Your task to perform on an android device: toggle data saver in the chrome app Image 0: 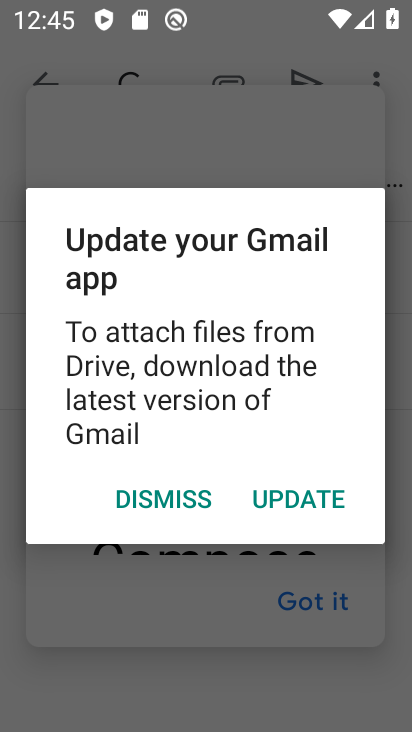
Step 0: press home button
Your task to perform on an android device: toggle data saver in the chrome app Image 1: 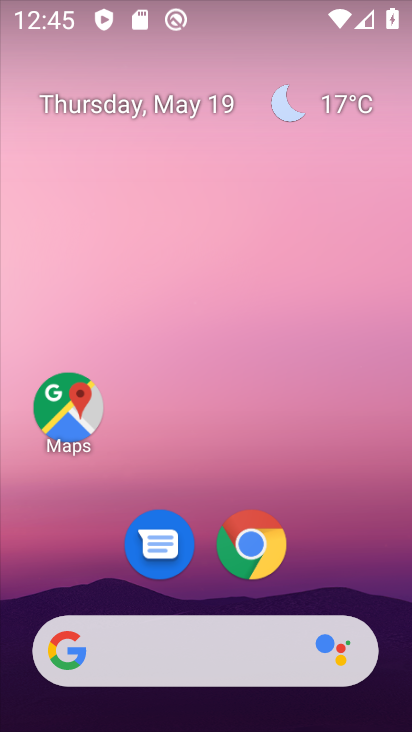
Step 1: click (252, 544)
Your task to perform on an android device: toggle data saver in the chrome app Image 2: 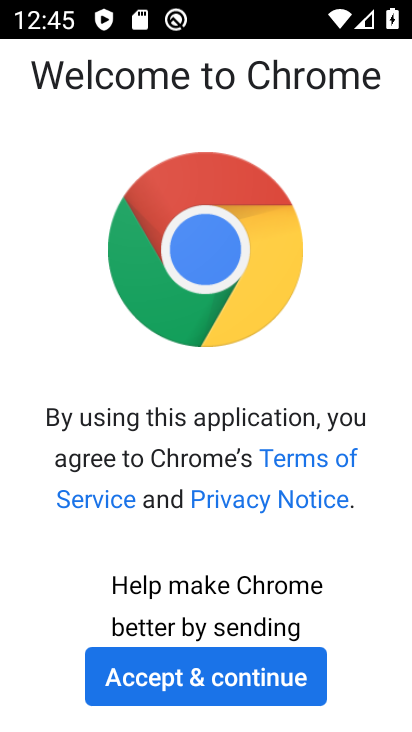
Step 2: click (146, 680)
Your task to perform on an android device: toggle data saver in the chrome app Image 3: 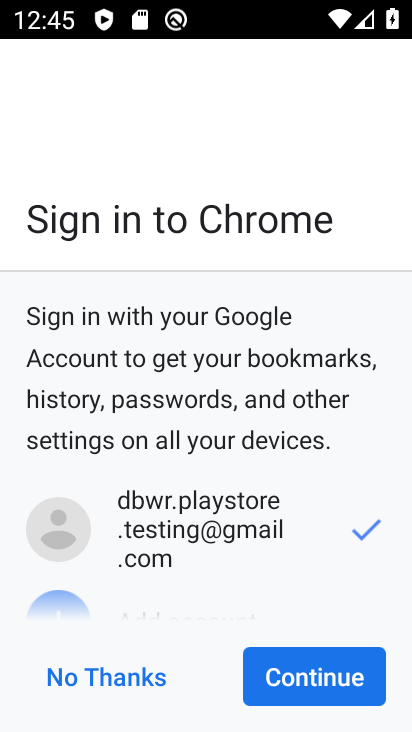
Step 3: click (309, 674)
Your task to perform on an android device: toggle data saver in the chrome app Image 4: 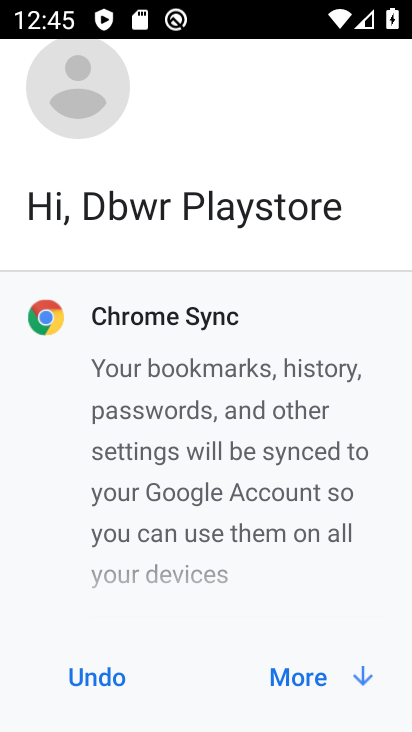
Step 4: click (284, 669)
Your task to perform on an android device: toggle data saver in the chrome app Image 5: 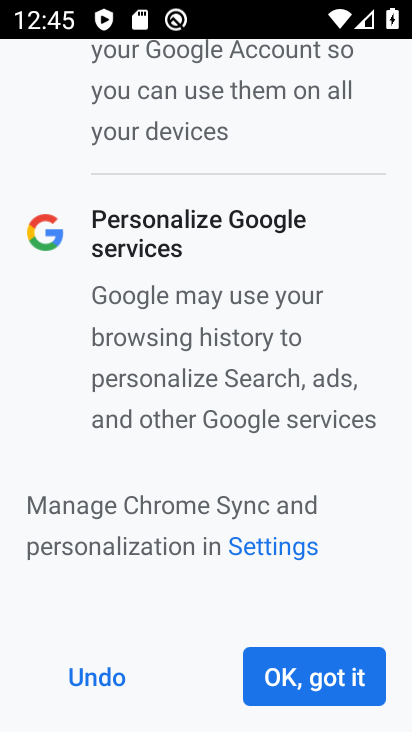
Step 5: click (286, 668)
Your task to perform on an android device: toggle data saver in the chrome app Image 6: 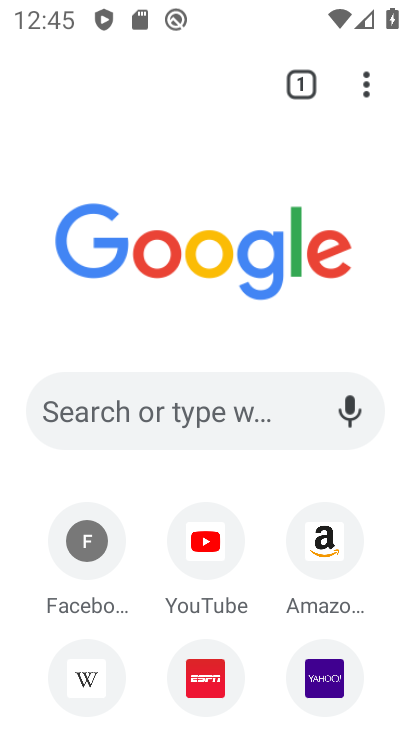
Step 6: click (367, 90)
Your task to perform on an android device: toggle data saver in the chrome app Image 7: 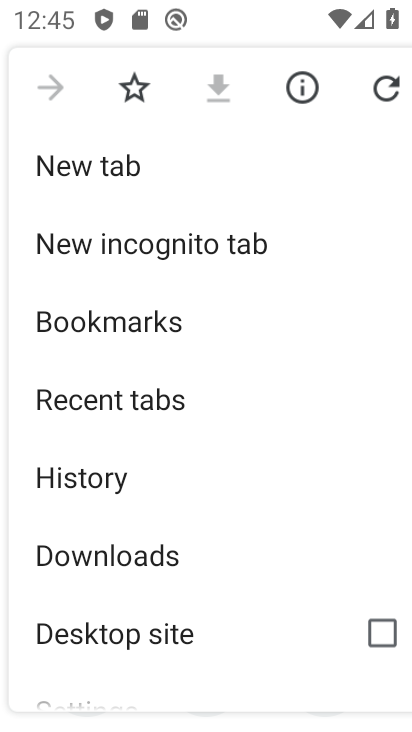
Step 7: drag from (202, 643) to (198, 340)
Your task to perform on an android device: toggle data saver in the chrome app Image 8: 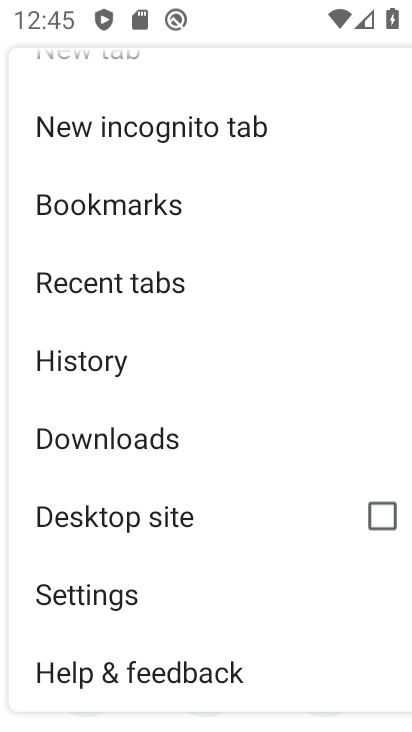
Step 8: click (86, 586)
Your task to perform on an android device: toggle data saver in the chrome app Image 9: 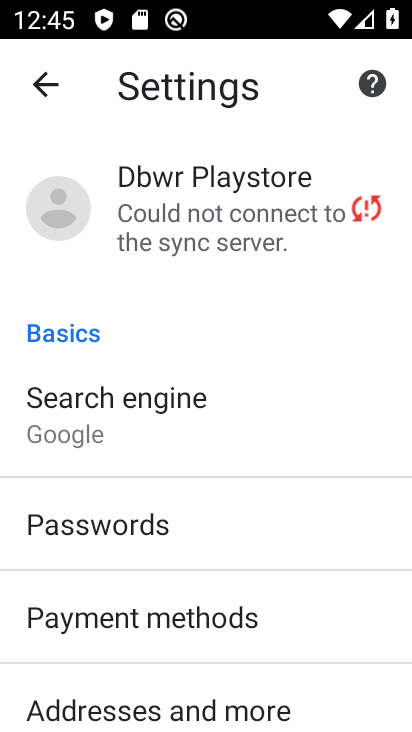
Step 9: drag from (144, 691) to (148, 340)
Your task to perform on an android device: toggle data saver in the chrome app Image 10: 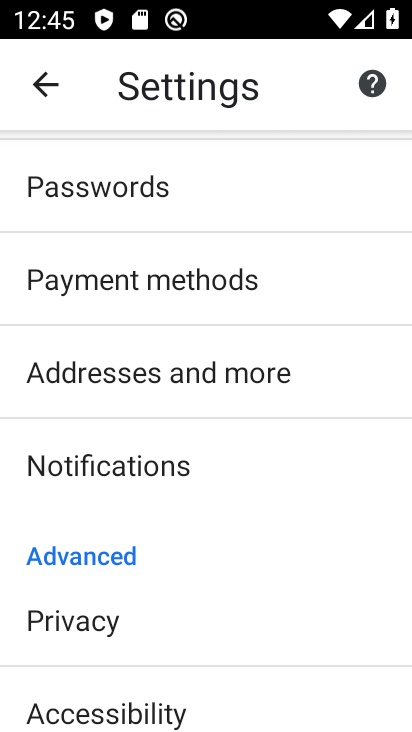
Step 10: drag from (186, 678) to (186, 324)
Your task to perform on an android device: toggle data saver in the chrome app Image 11: 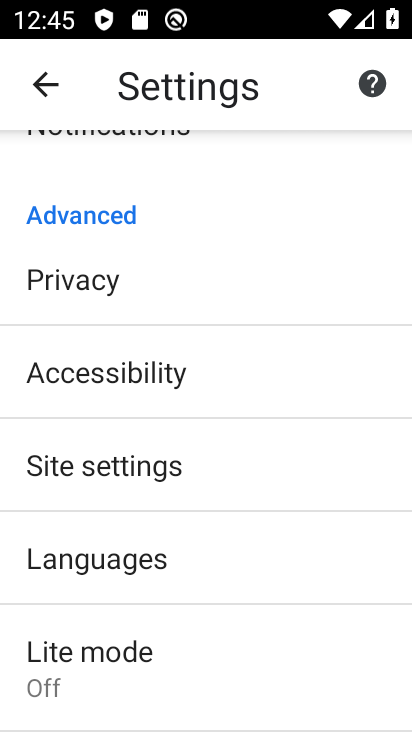
Step 11: click (96, 648)
Your task to perform on an android device: toggle data saver in the chrome app Image 12: 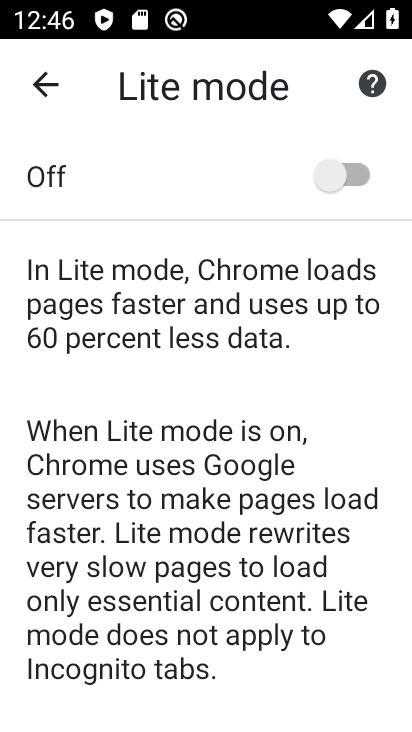
Step 12: click (350, 169)
Your task to perform on an android device: toggle data saver in the chrome app Image 13: 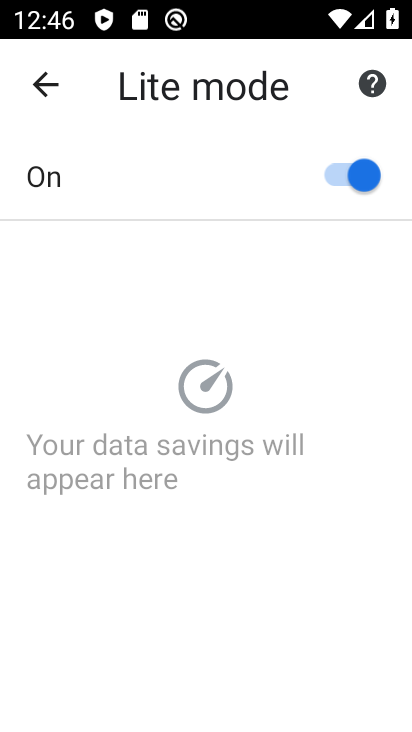
Step 13: task complete